Your task to perform on an android device: What's the weather going to be this weekend? Image 0: 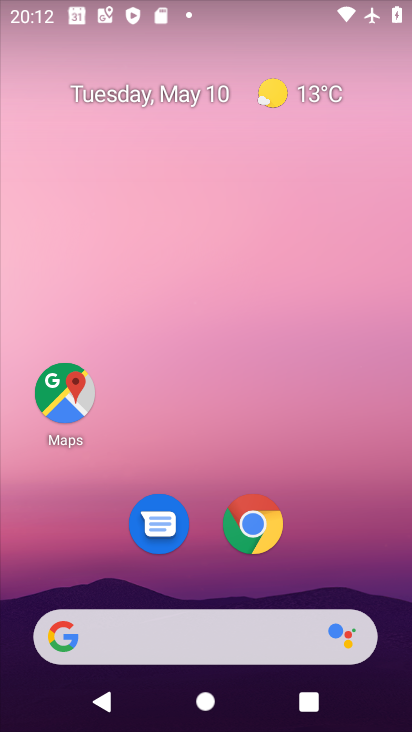
Step 0: click (293, 90)
Your task to perform on an android device: What's the weather going to be this weekend? Image 1: 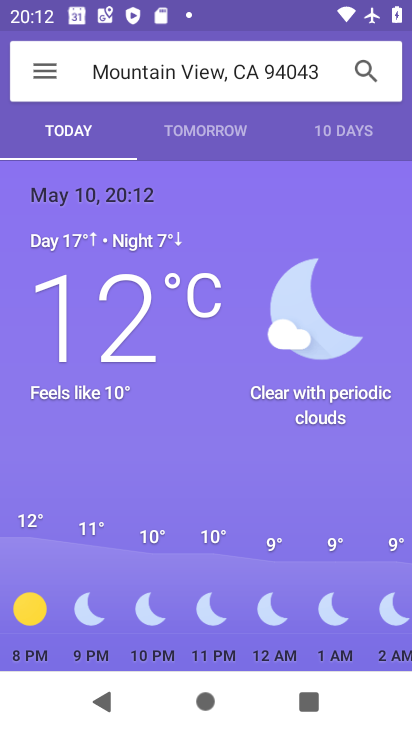
Step 1: click (346, 131)
Your task to perform on an android device: What's the weather going to be this weekend? Image 2: 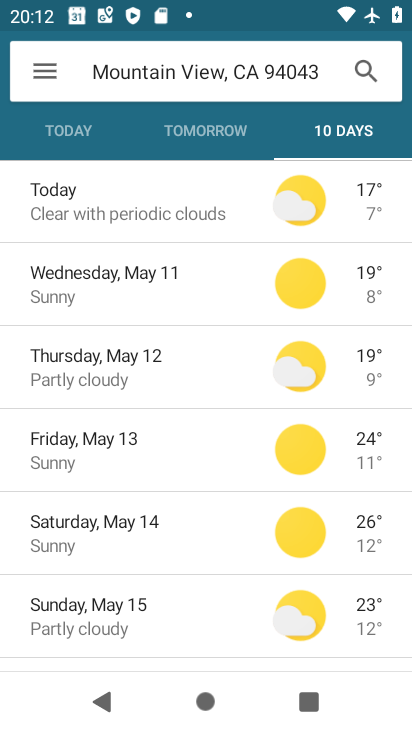
Step 2: click (106, 522)
Your task to perform on an android device: What's the weather going to be this weekend? Image 3: 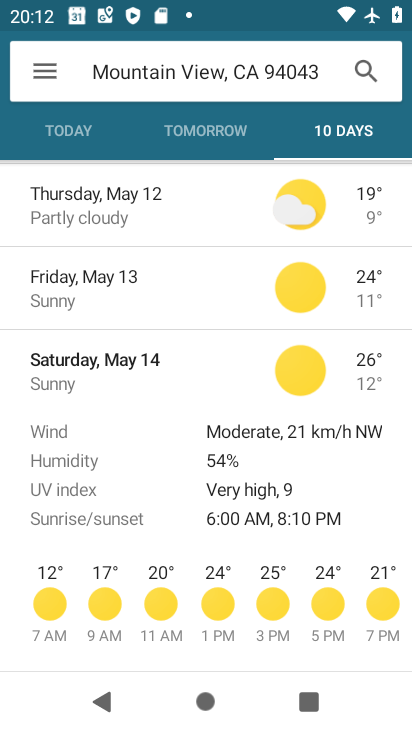
Step 3: task complete